Your task to perform on an android device: Open Yahoo.com Image 0: 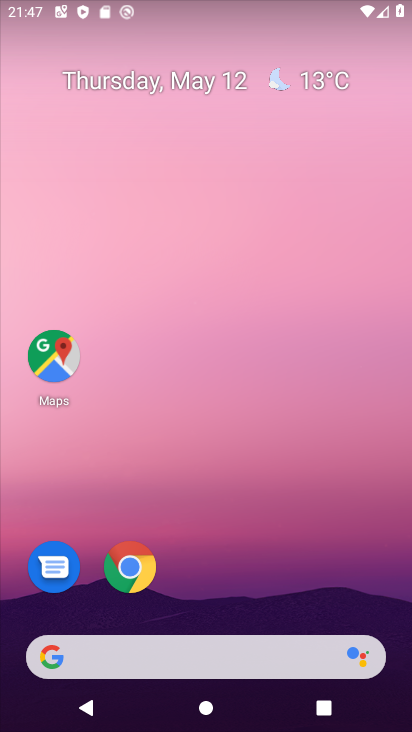
Step 0: click (126, 559)
Your task to perform on an android device: Open Yahoo.com Image 1: 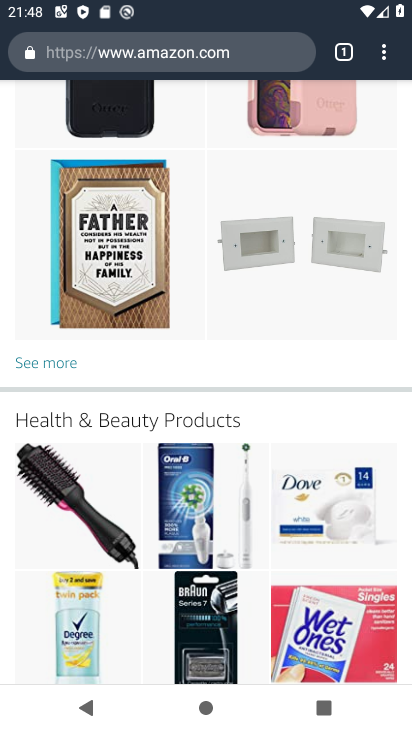
Step 1: click (342, 57)
Your task to perform on an android device: Open Yahoo.com Image 2: 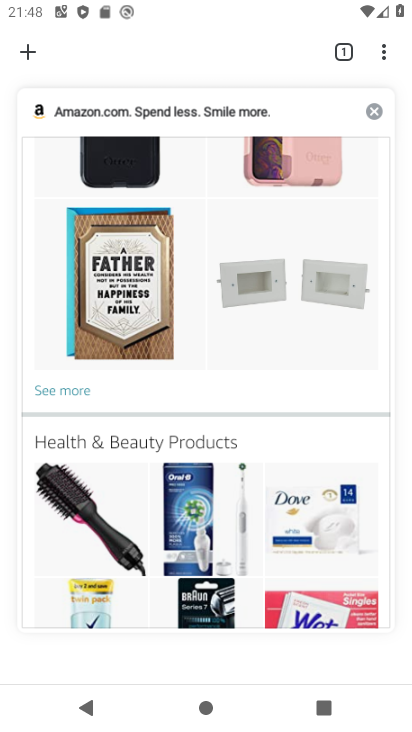
Step 2: click (373, 105)
Your task to perform on an android device: Open Yahoo.com Image 3: 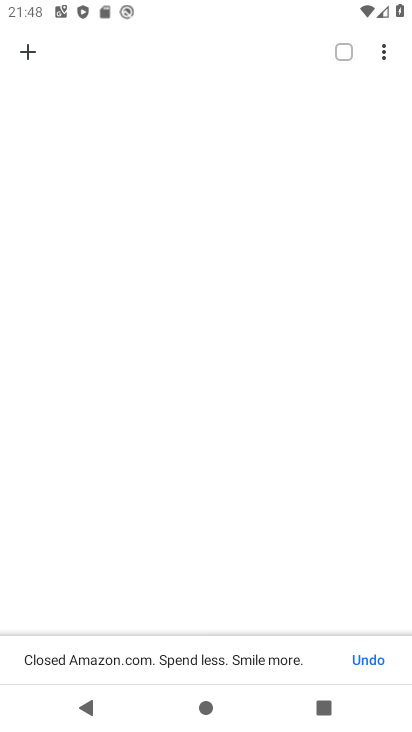
Step 3: click (32, 50)
Your task to perform on an android device: Open Yahoo.com Image 4: 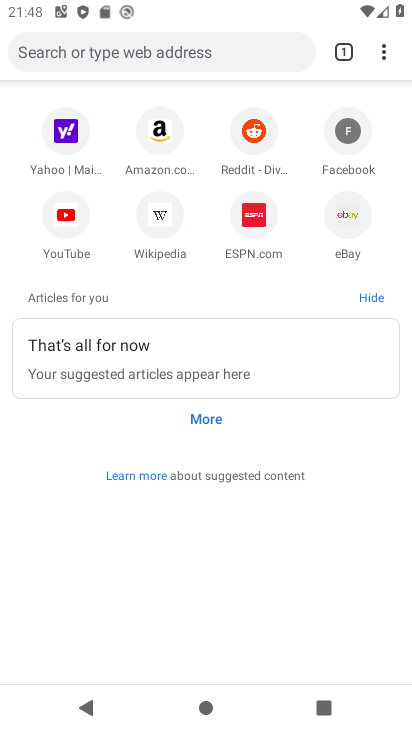
Step 4: click (60, 129)
Your task to perform on an android device: Open Yahoo.com Image 5: 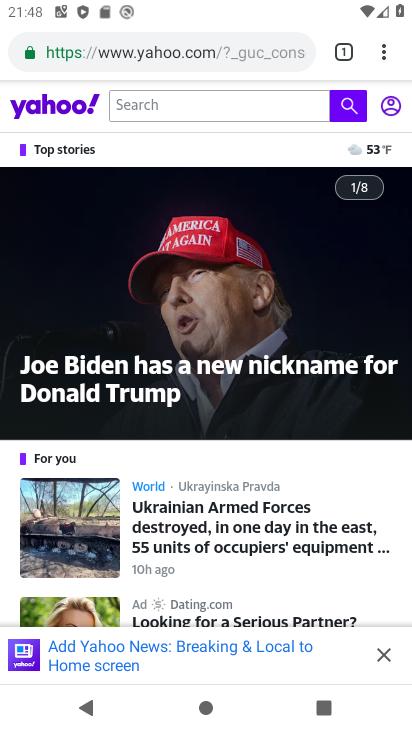
Step 5: task complete